Your task to perform on an android device: Open Yahoo.com Image 0: 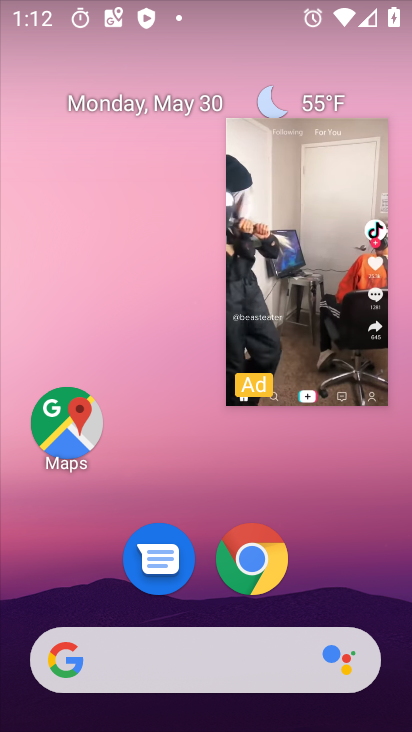
Step 0: click (281, 243)
Your task to perform on an android device: Open Yahoo.com Image 1: 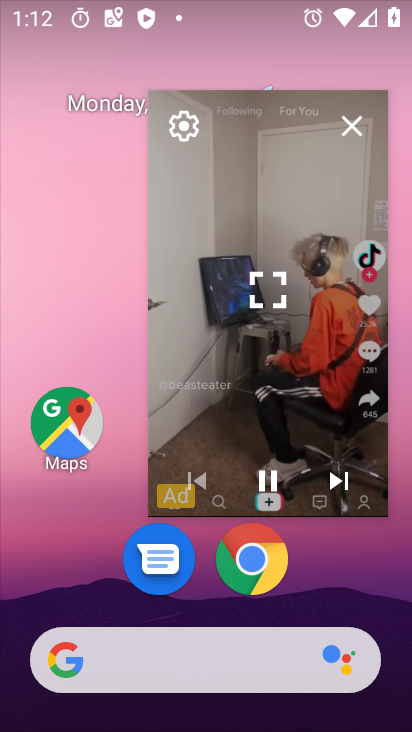
Step 1: click (270, 283)
Your task to perform on an android device: Open Yahoo.com Image 2: 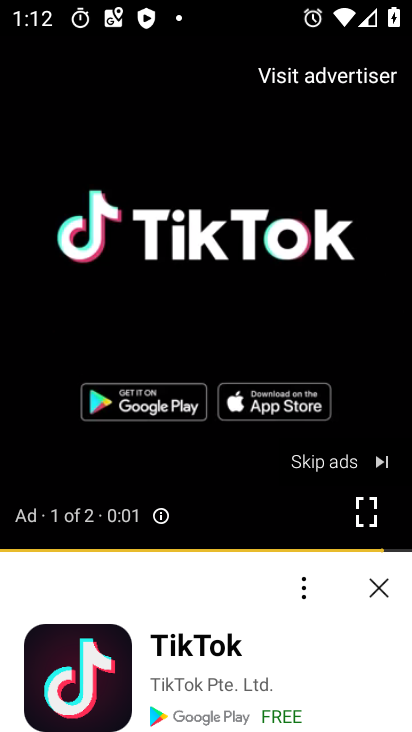
Step 2: click (207, 282)
Your task to perform on an android device: Open Yahoo.com Image 3: 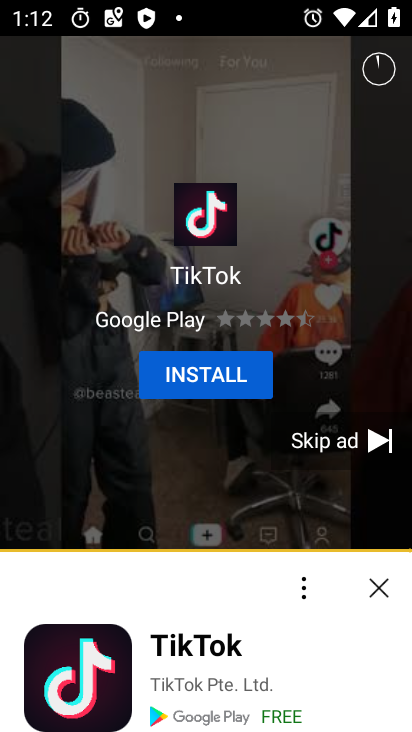
Step 3: click (186, 267)
Your task to perform on an android device: Open Yahoo.com Image 4: 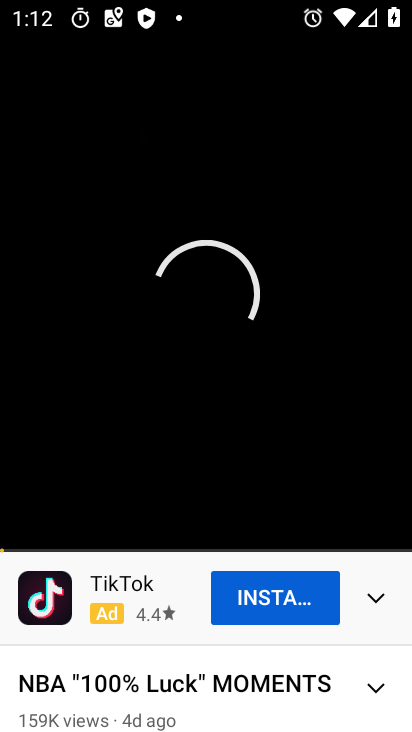
Step 4: click (216, 269)
Your task to perform on an android device: Open Yahoo.com Image 5: 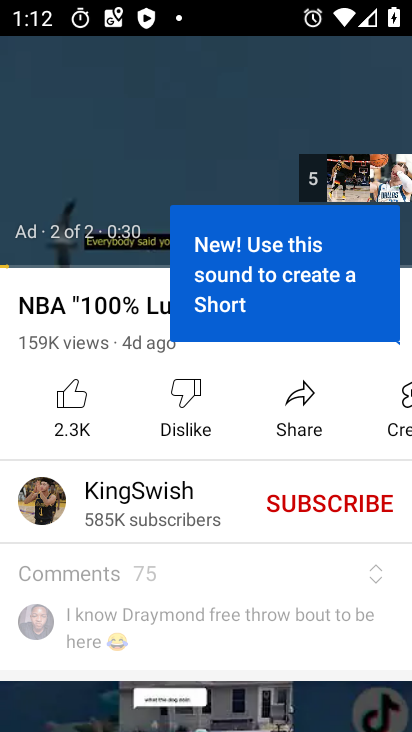
Step 5: click (186, 136)
Your task to perform on an android device: Open Yahoo.com Image 6: 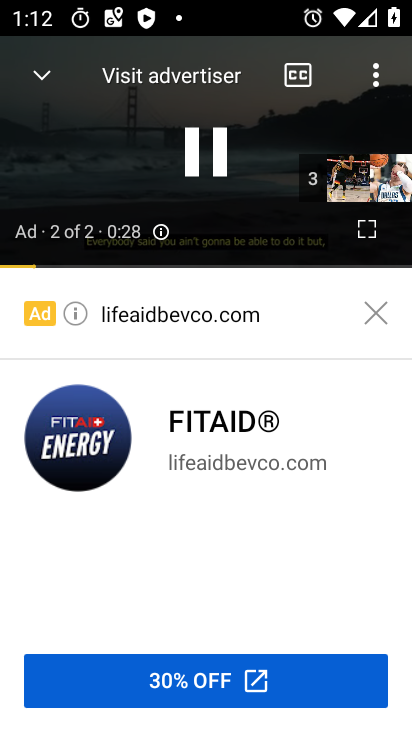
Step 6: click (195, 137)
Your task to perform on an android device: Open Yahoo.com Image 7: 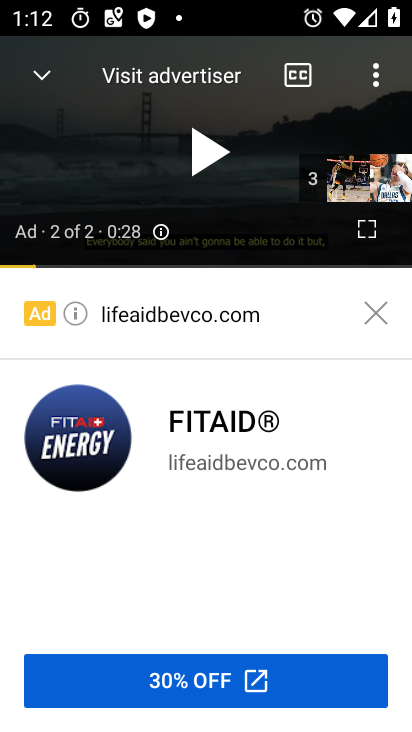
Step 7: press home button
Your task to perform on an android device: Open Yahoo.com Image 8: 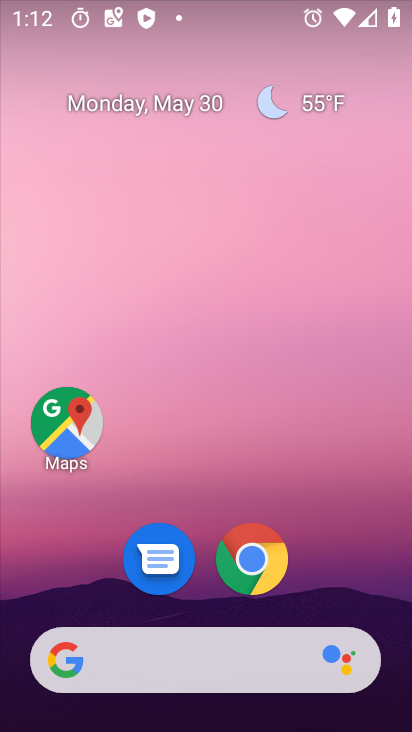
Step 8: click (248, 572)
Your task to perform on an android device: Open Yahoo.com Image 9: 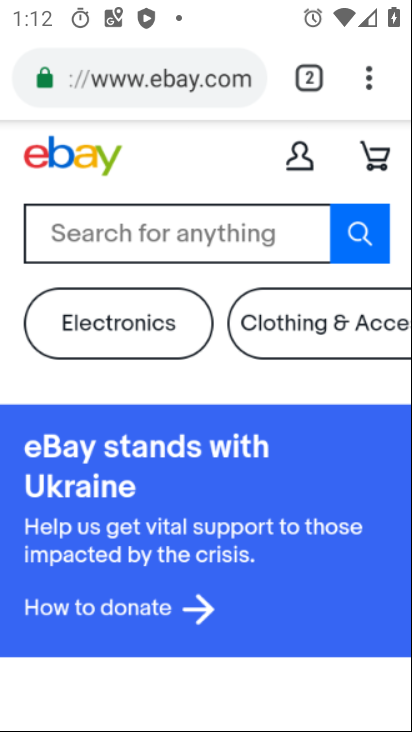
Step 9: click (301, 71)
Your task to perform on an android device: Open Yahoo.com Image 10: 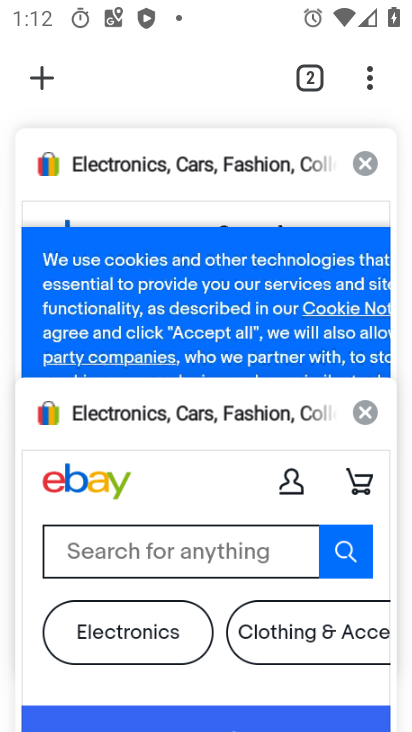
Step 10: click (26, 86)
Your task to perform on an android device: Open Yahoo.com Image 11: 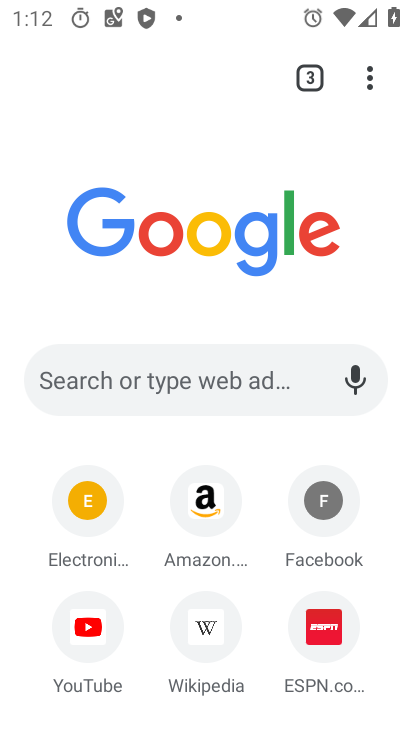
Step 11: drag from (162, 634) to (226, 525)
Your task to perform on an android device: Open Yahoo.com Image 12: 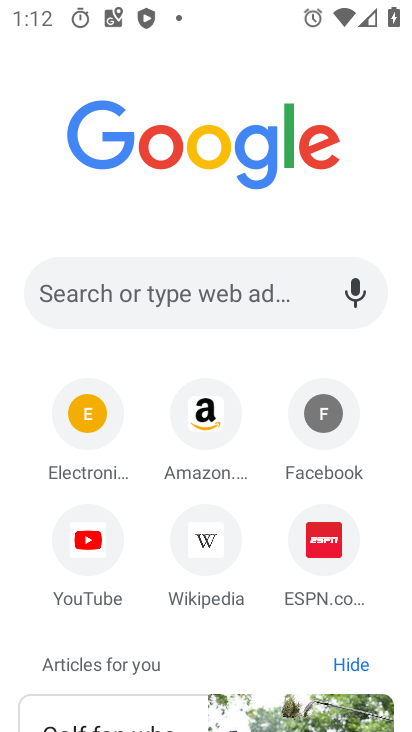
Step 12: click (78, 295)
Your task to perform on an android device: Open Yahoo.com Image 13: 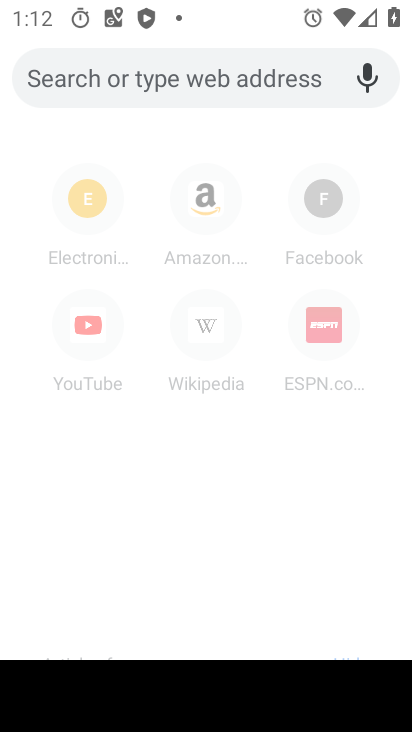
Step 13: type "yahoo"
Your task to perform on an android device: Open Yahoo.com Image 14: 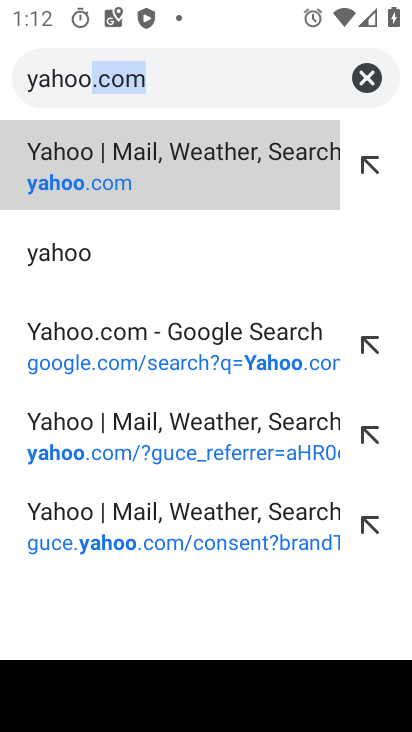
Step 14: click (192, 180)
Your task to perform on an android device: Open Yahoo.com Image 15: 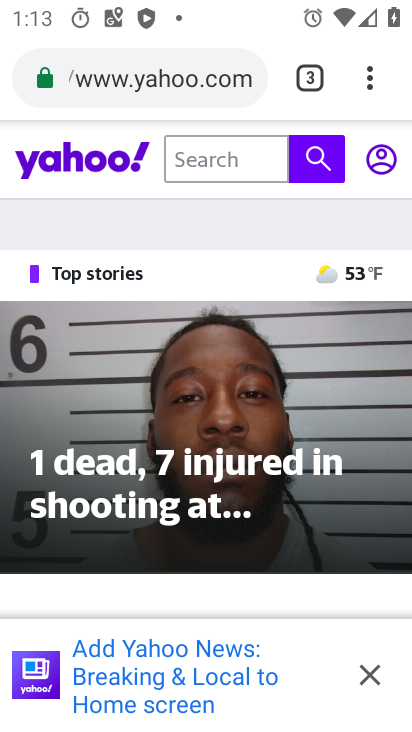
Step 15: task complete